Your task to perform on an android device: add a label to a message in the gmail app Image 0: 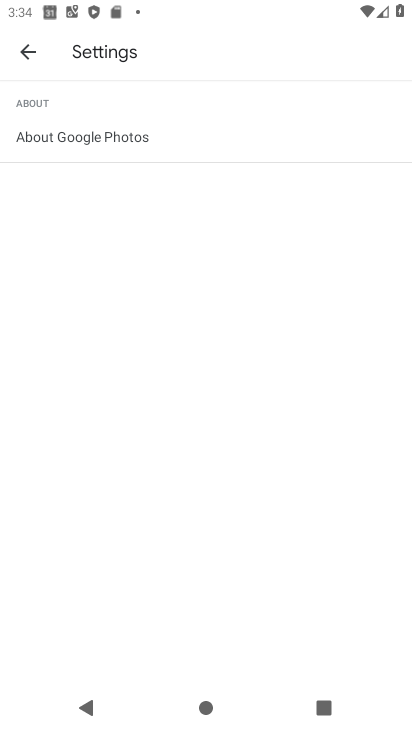
Step 0: press home button
Your task to perform on an android device: add a label to a message in the gmail app Image 1: 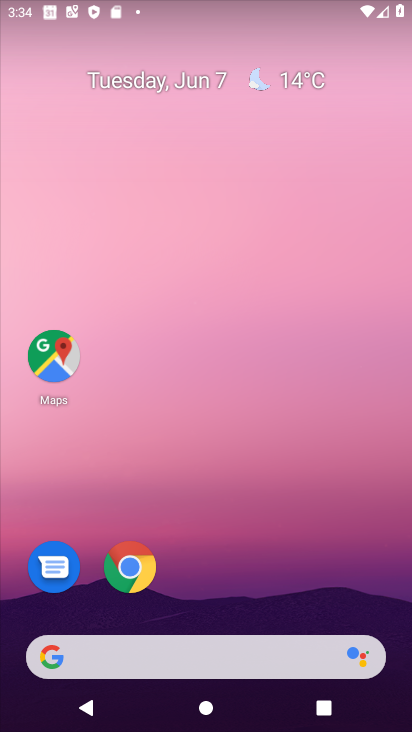
Step 1: drag from (195, 596) to (190, 215)
Your task to perform on an android device: add a label to a message in the gmail app Image 2: 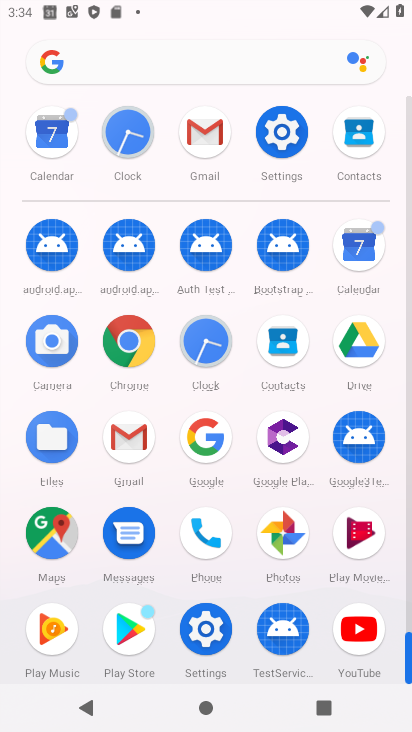
Step 2: click (208, 145)
Your task to perform on an android device: add a label to a message in the gmail app Image 3: 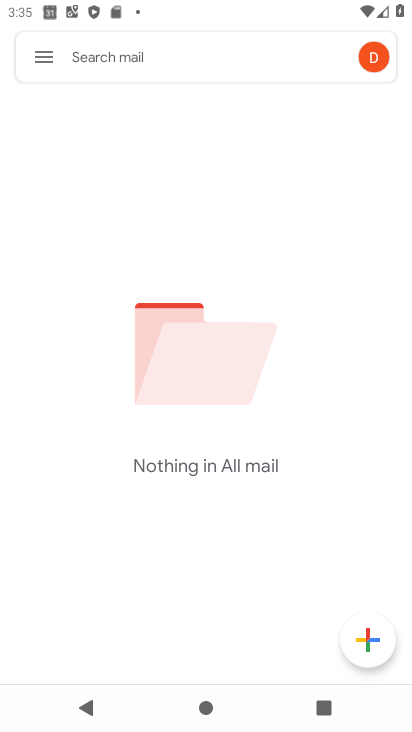
Step 3: press home button
Your task to perform on an android device: add a label to a message in the gmail app Image 4: 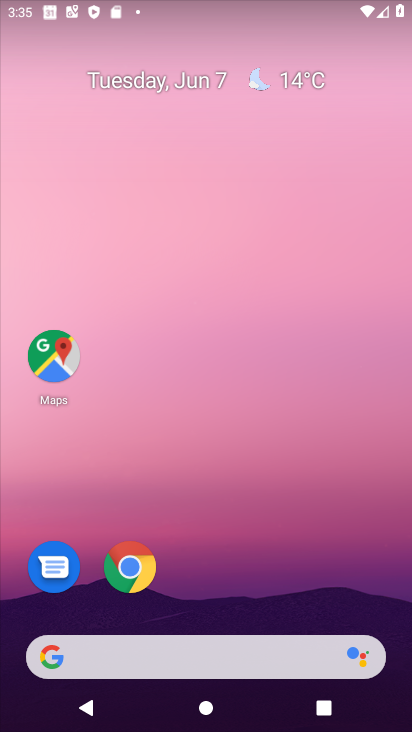
Step 4: drag from (229, 580) to (229, 265)
Your task to perform on an android device: add a label to a message in the gmail app Image 5: 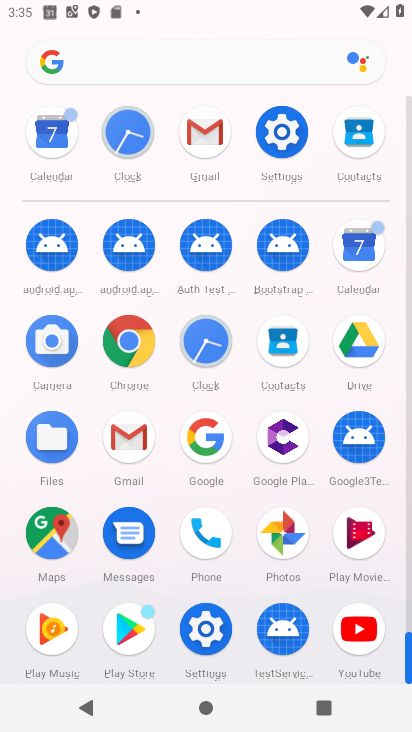
Step 5: click (200, 148)
Your task to perform on an android device: add a label to a message in the gmail app Image 6: 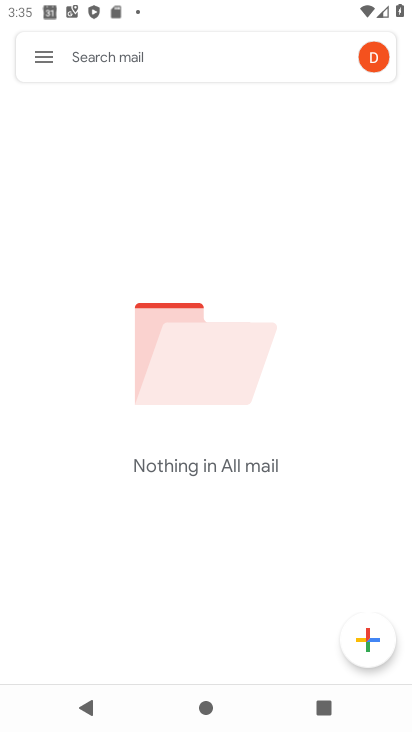
Step 6: task complete